Your task to perform on an android device: Open a new incognito window in Chrome Image 0: 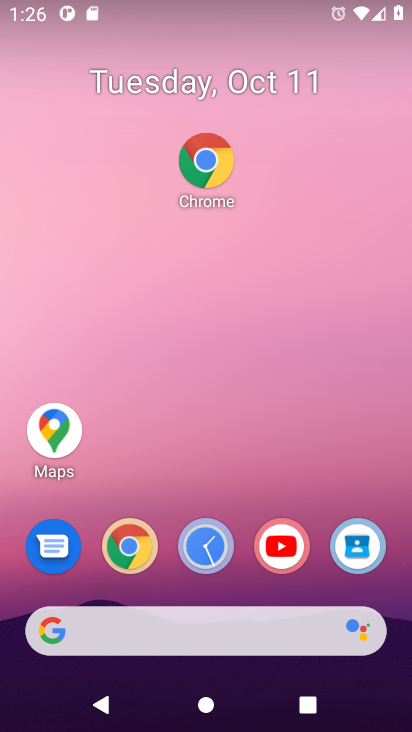
Step 0: click (220, 158)
Your task to perform on an android device: Open a new incognito window in Chrome Image 1: 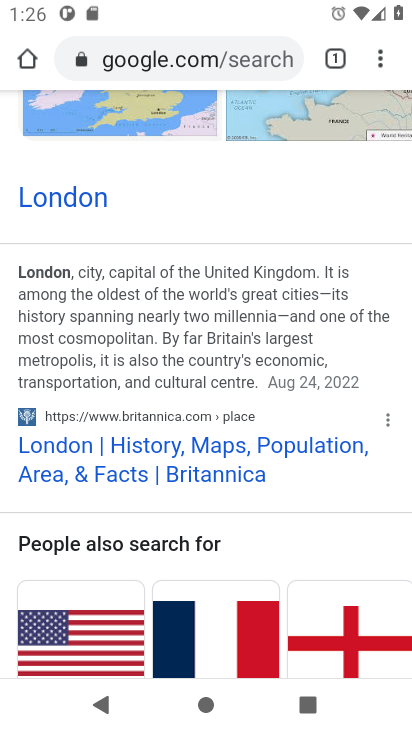
Step 1: click (225, 62)
Your task to perform on an android device: Open a new incognito window in Chrome Image 2: 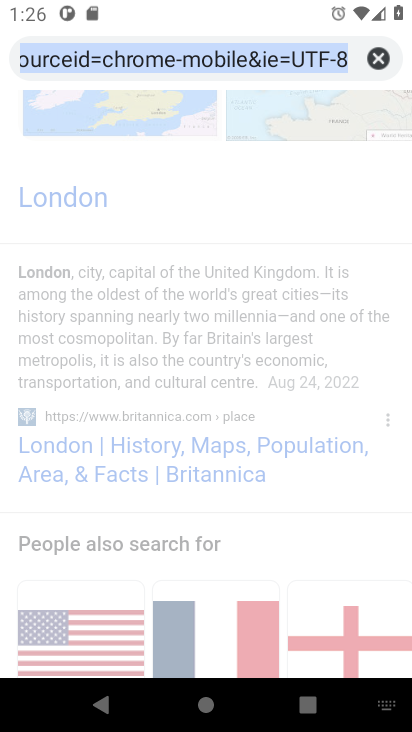
Step 2: click (376, 57)
Your task to perform on an android device: Open a new incognito window in Chrome Image 3: 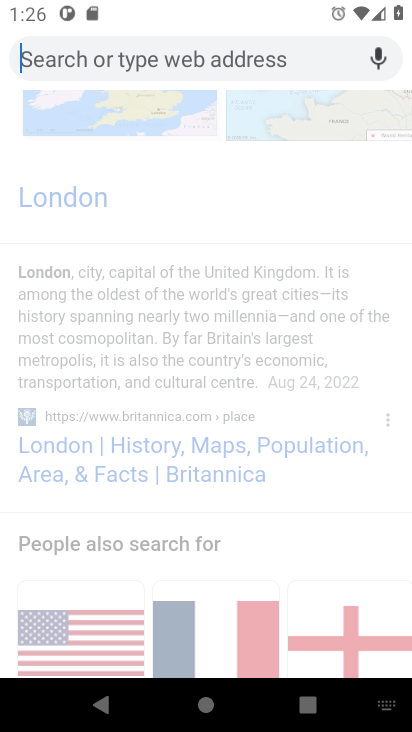
Step 3: press back button
Your task to perform on an android device: Open a new incognito window in Chrome Image 4: 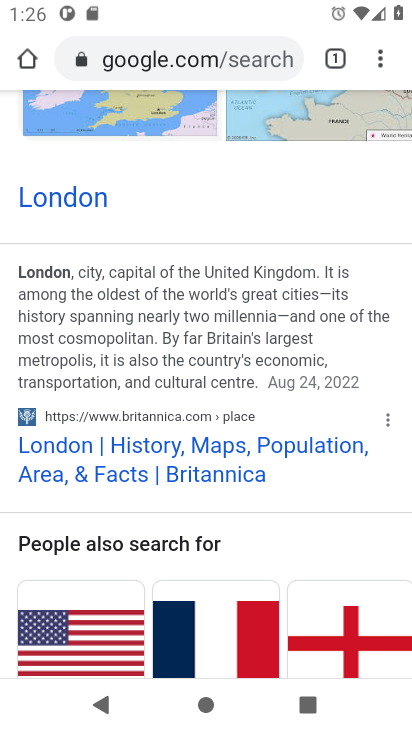
Step 4: click (379, 59)
Your task to perform on an android device: Open a new incognito window in Chrome Image 5: 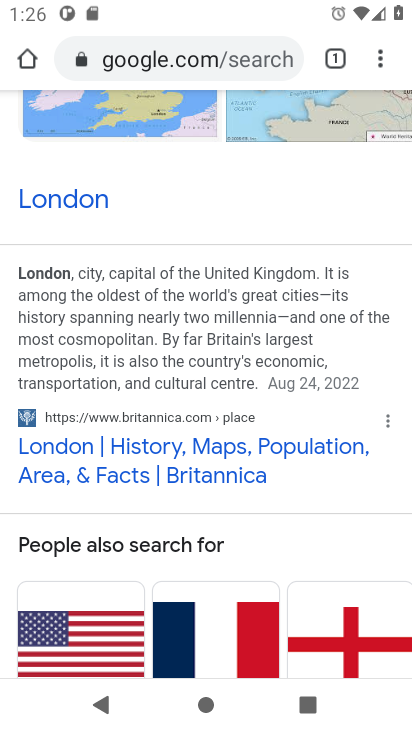
Step 5: click (381, 60)
Your task to perform on an android device: Open a new incognito window in Chrome Image 6: 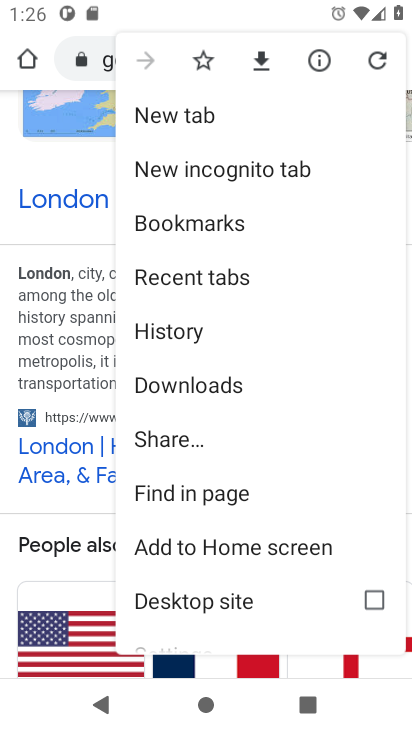
Step 6: click (229, 172)
Your task to perform on an android device: Open a new incognito window in Chrome Image 7: 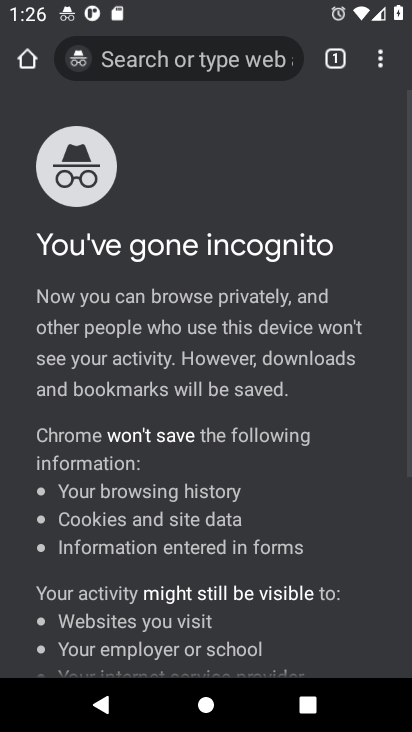
Step 7: task complete